Your task to perform on an android device: change notifications settings Image 0: 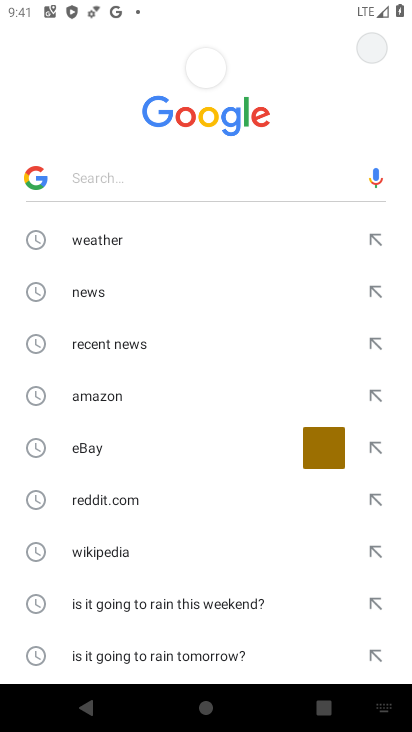
Step 0: press home button
Your task to perform on an android device: change notifications settings Image 1: 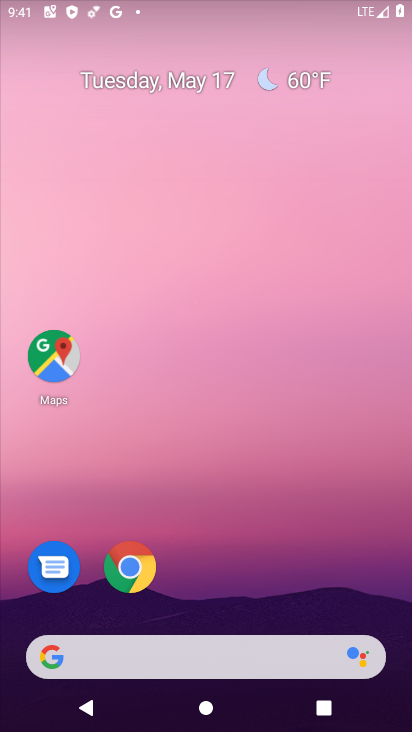
Step 1: drag from (390, 614) to (240, 20)
Your task to perform on an android device: change notifications settings Image 2: 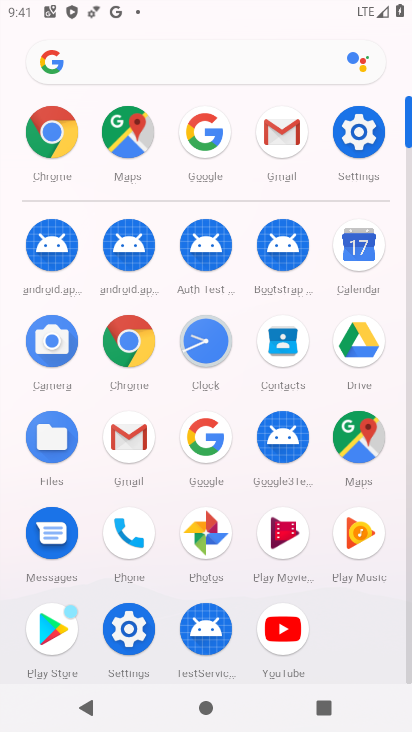
Step 2: click (122, 647)
Your task to perform on an android device: change notifications settings Image 3: 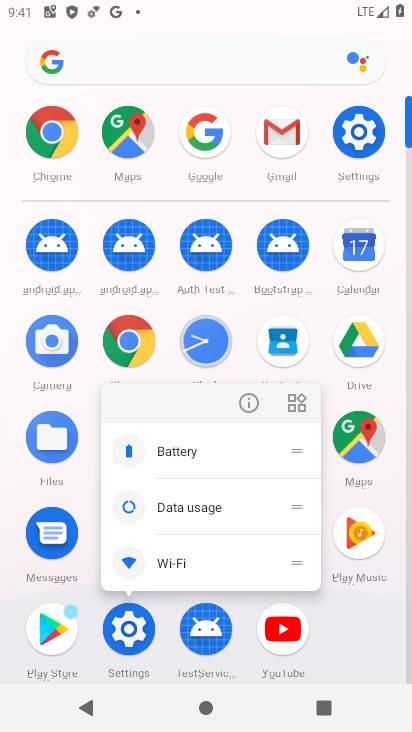
Step 3: click (122, 647)
Your task to perform on an android device: change notifications settings Image 4: 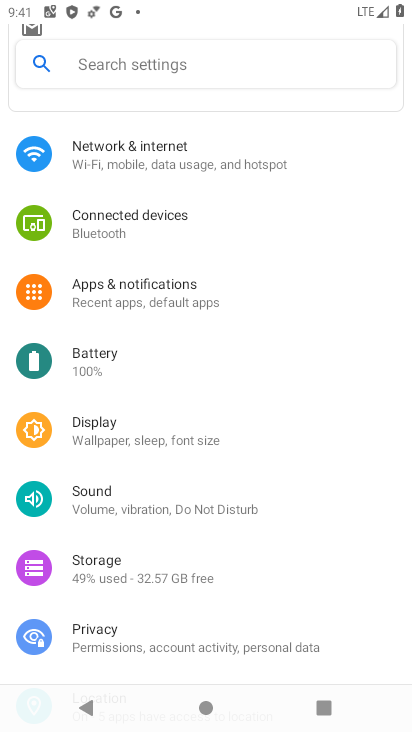
Step 4: click (177, 299)
Your task to perform on an android device: change notifications settings Image 5: 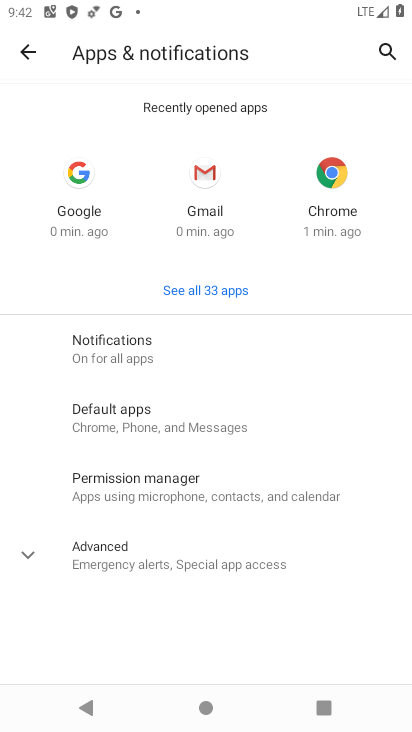
Step 5: task complete